Your task to perform on an android device: Is it going to rain tomorrow? Image 0: 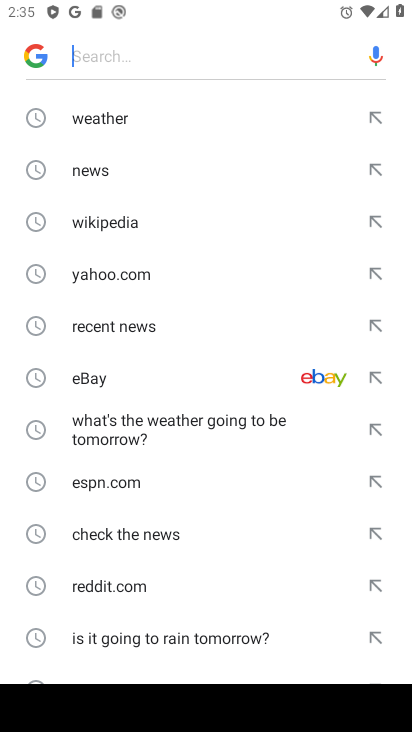
Step 0: press home button
Your task to perform on an android device: Is it going to rain tomorrow? Image 1: 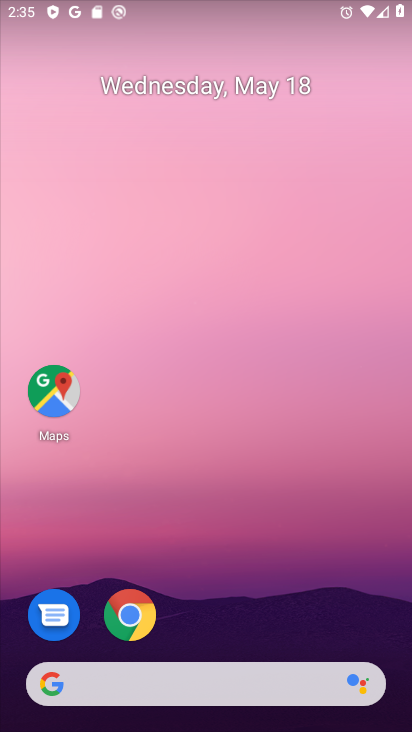
Step 1: click (129, 615)
Your task to perform on an android device: Is it going to rain tomorrow? Image 2: 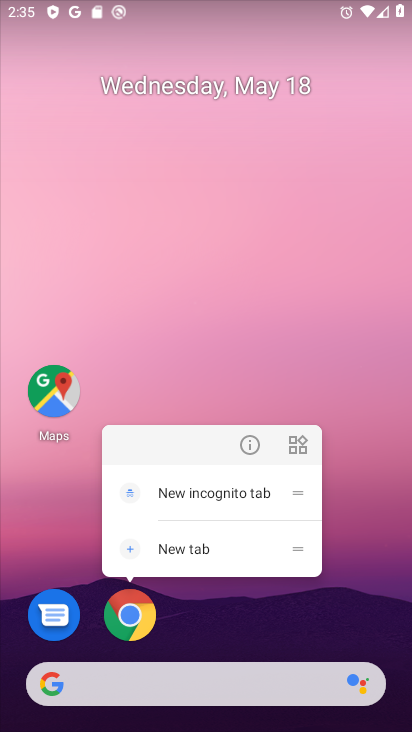
Step 2: click (247, 441)
Your task to perform on an android device: Is it going to rain tomorrow? Image 3: 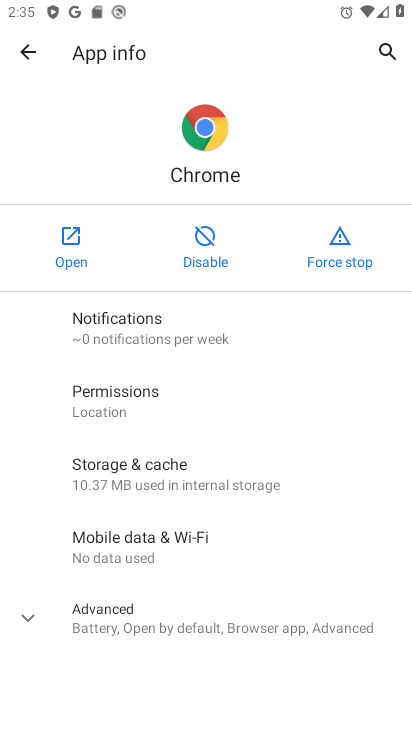
Step 3: click (66, 246)
Your task to perform on an android device: Is it going to rain tomorrow? Image 4: 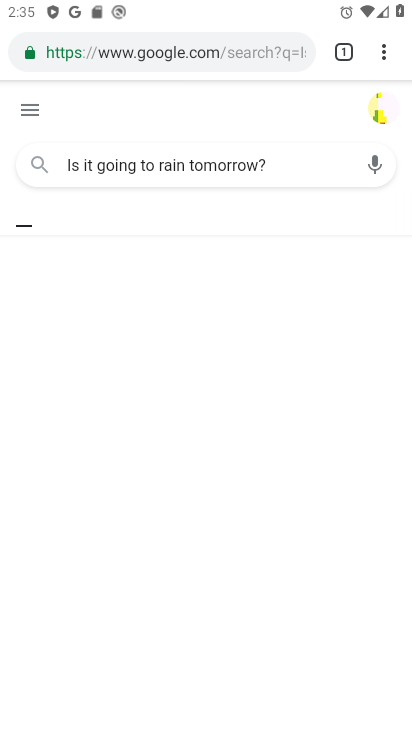
Step 4: click (191, 57)
Your task to perform on an android device: Is it going to rain tomorrow? Image 5: 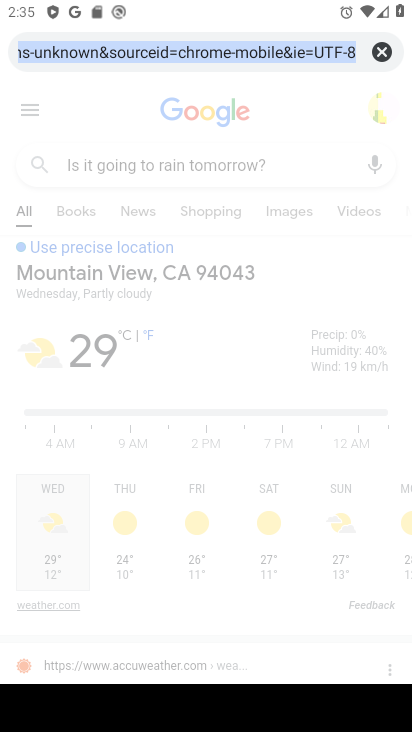
Step 5: type "Is it going to rain tomorrow?"
Your task to perform on an android device: Is it going to rain tomorrow? Image 6: 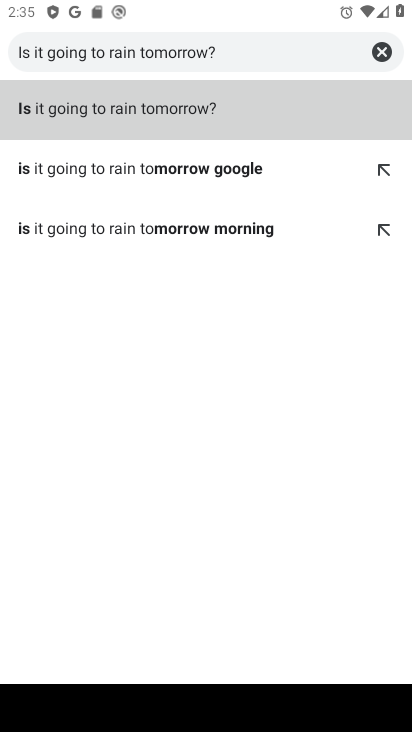
Step 6: click (163, 117)
Your task to perform on an android device: Is it going to rain tomorrow? Image 7: 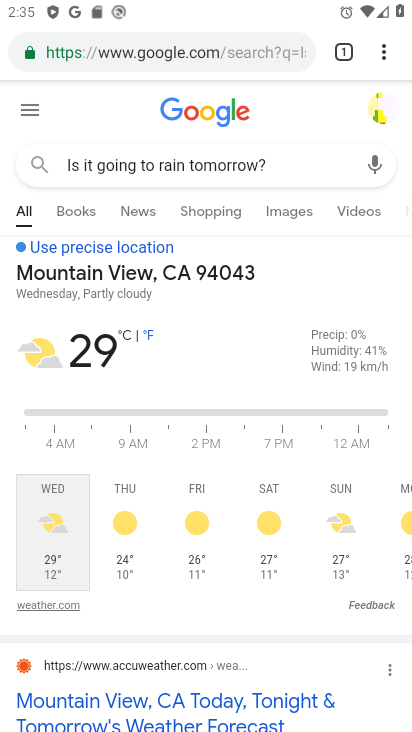
Step 7: task complete